Your task to perform on an android device: How do I get to the nearest Macy's? Image 0: 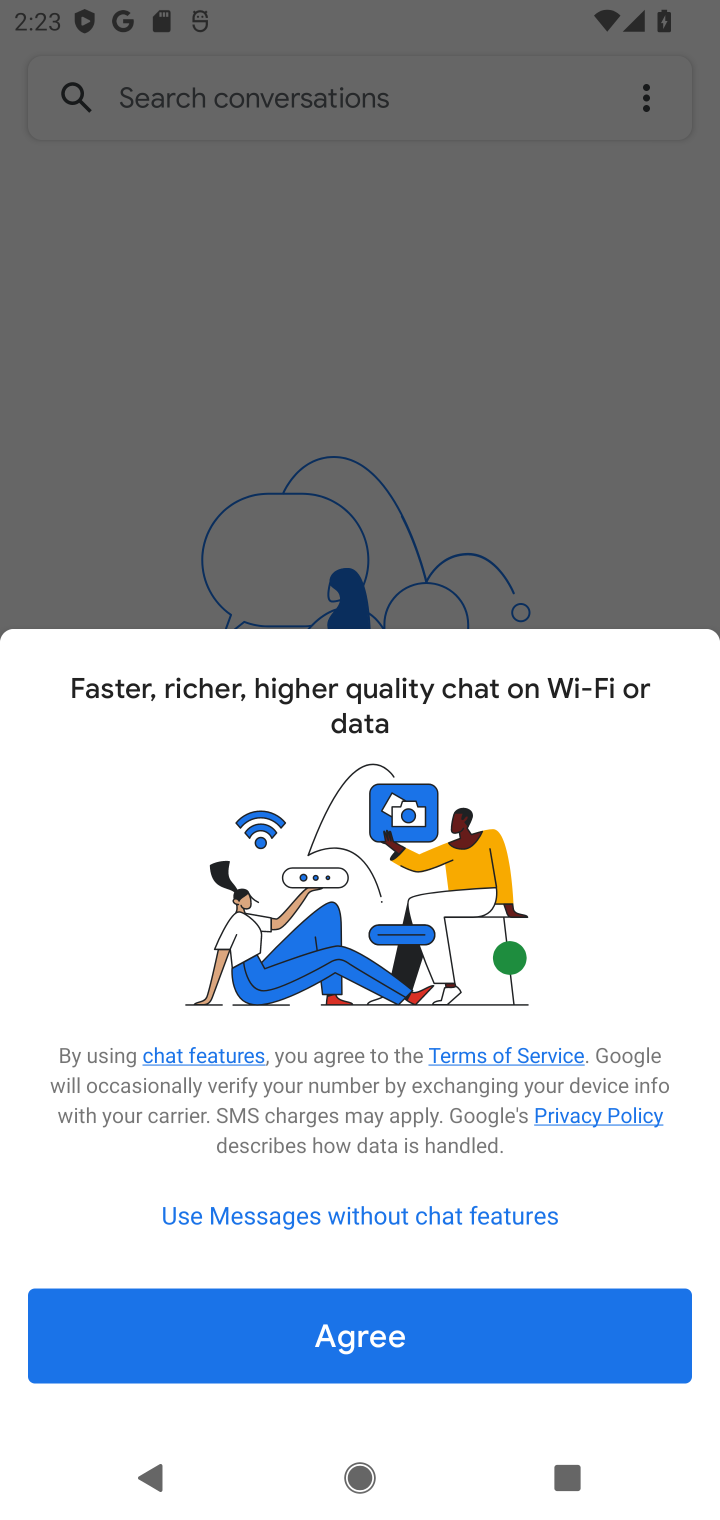
Step 0: press home button
Your task to perform on an android device: How do I get to the nearest Macy's? Image 1: 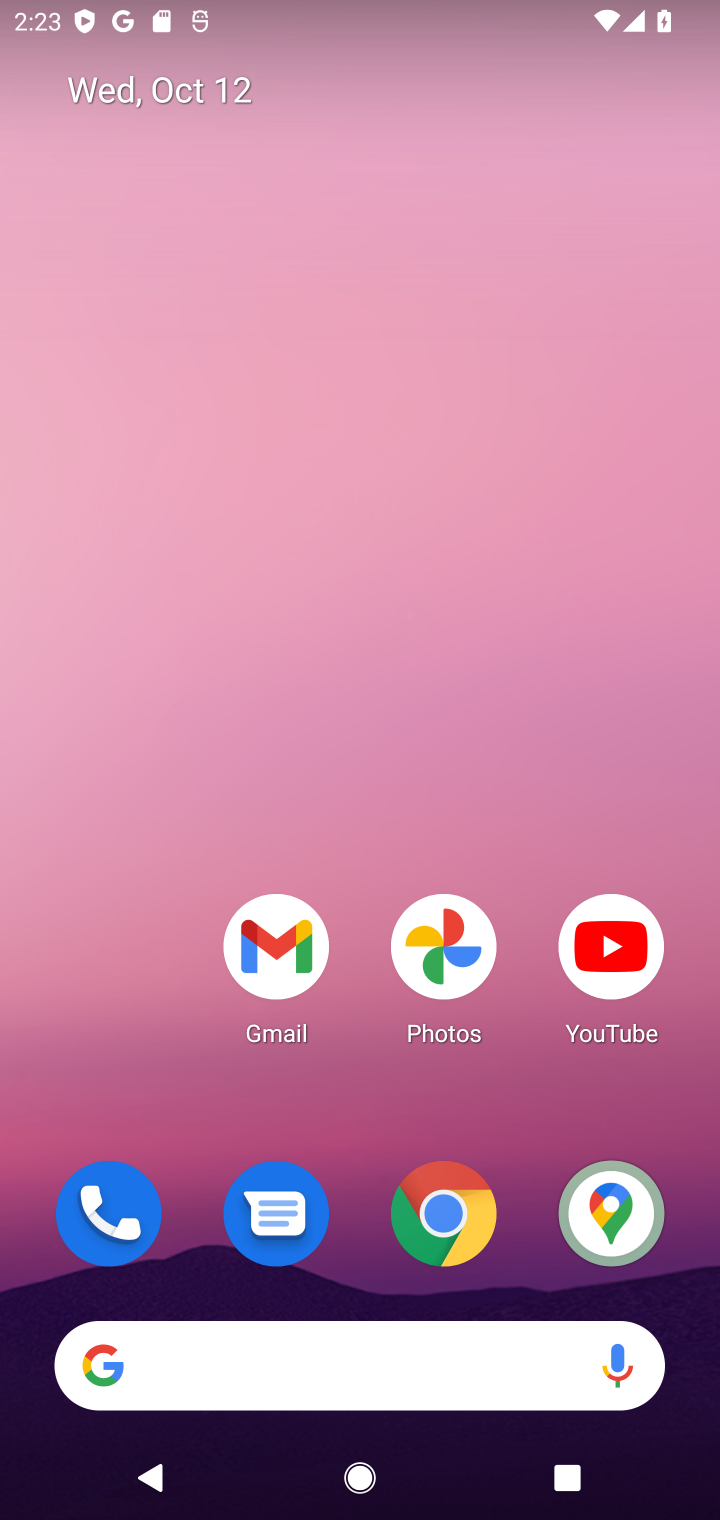
Step 1: click (327, 1335)
Your task to perform on an android device: How do I get to the nearest Macy's? Image 2: 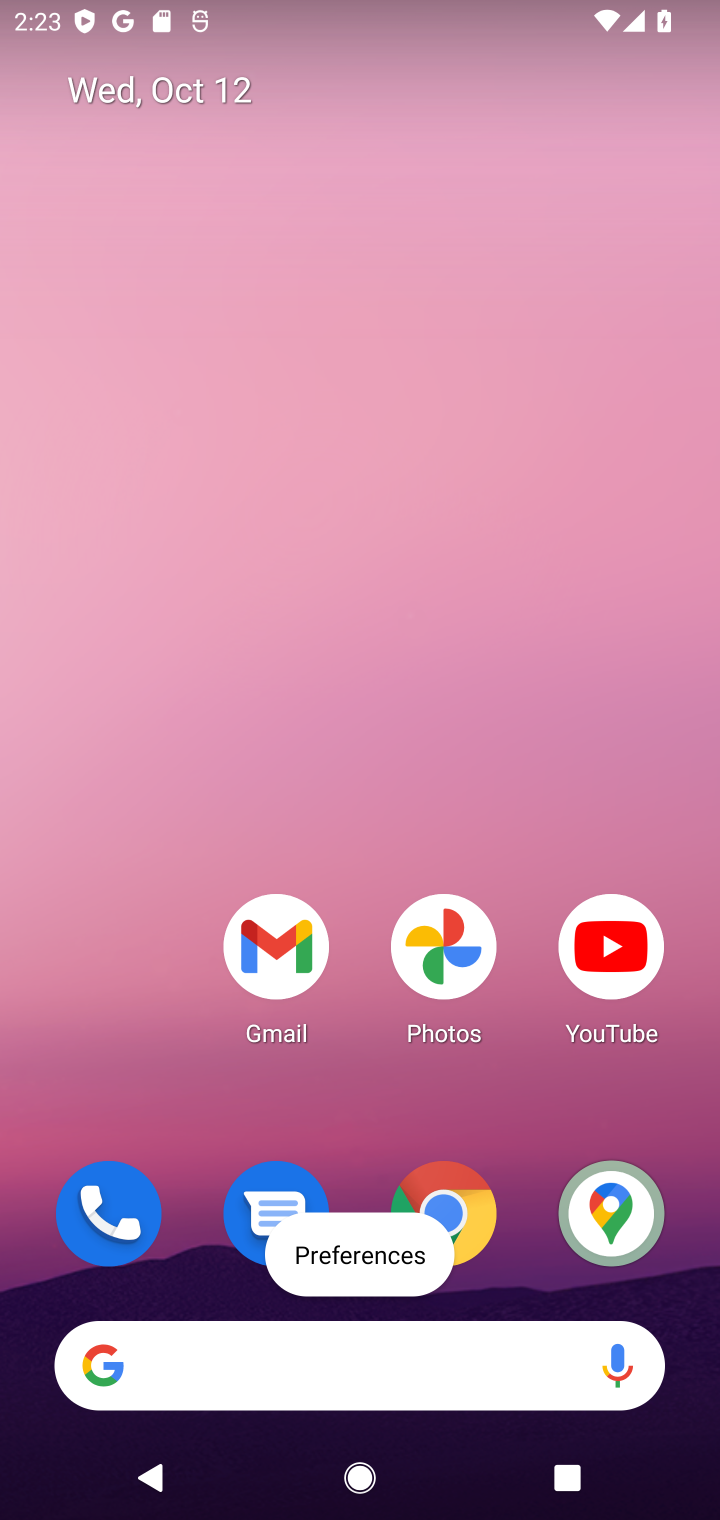
Step 2: click (296, 1347)
Your task to perform on an android device: How do I get to the nearest Macy's? Image 3: 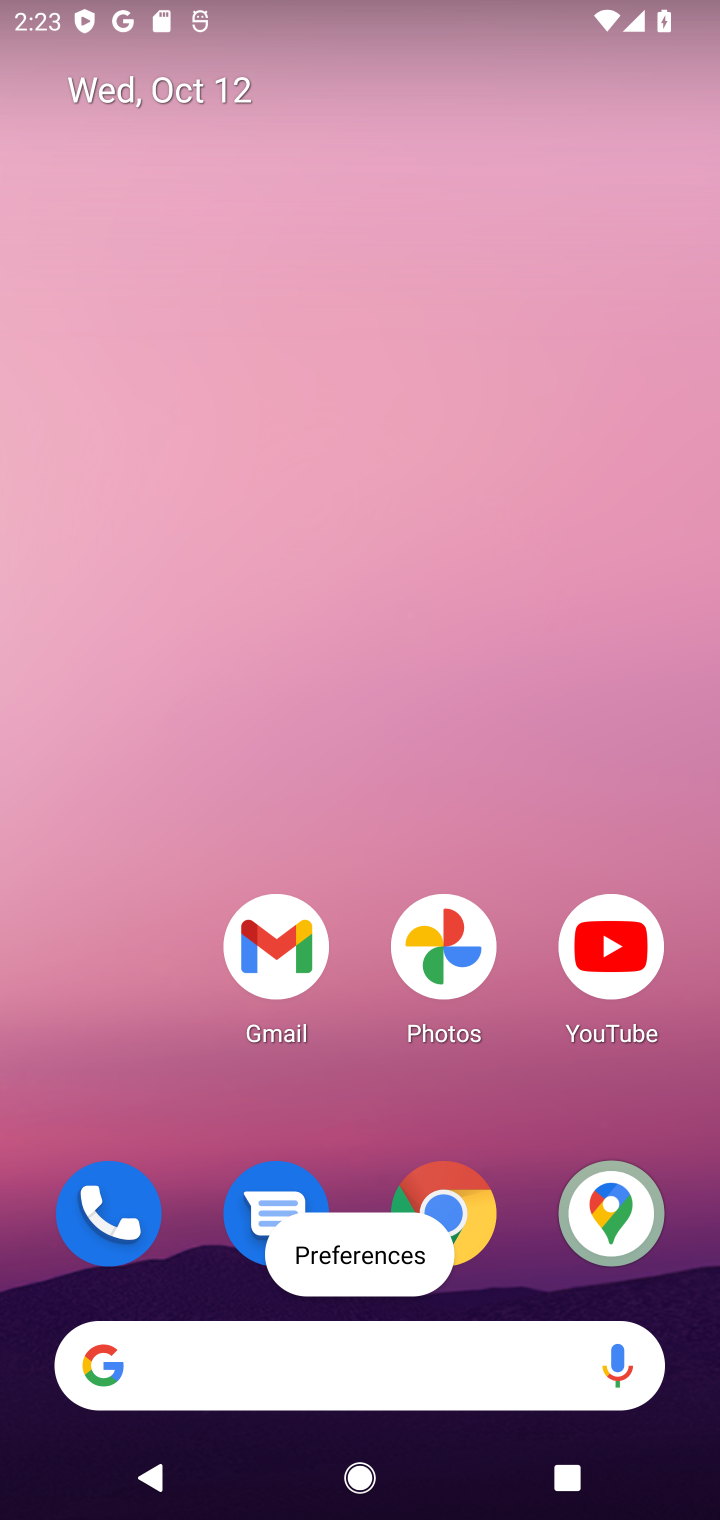
Step 3: type "How do I get to the nearest Macy's?"
Your task to perform on an android device: How do I get to the nearest Macy's? Image 4: 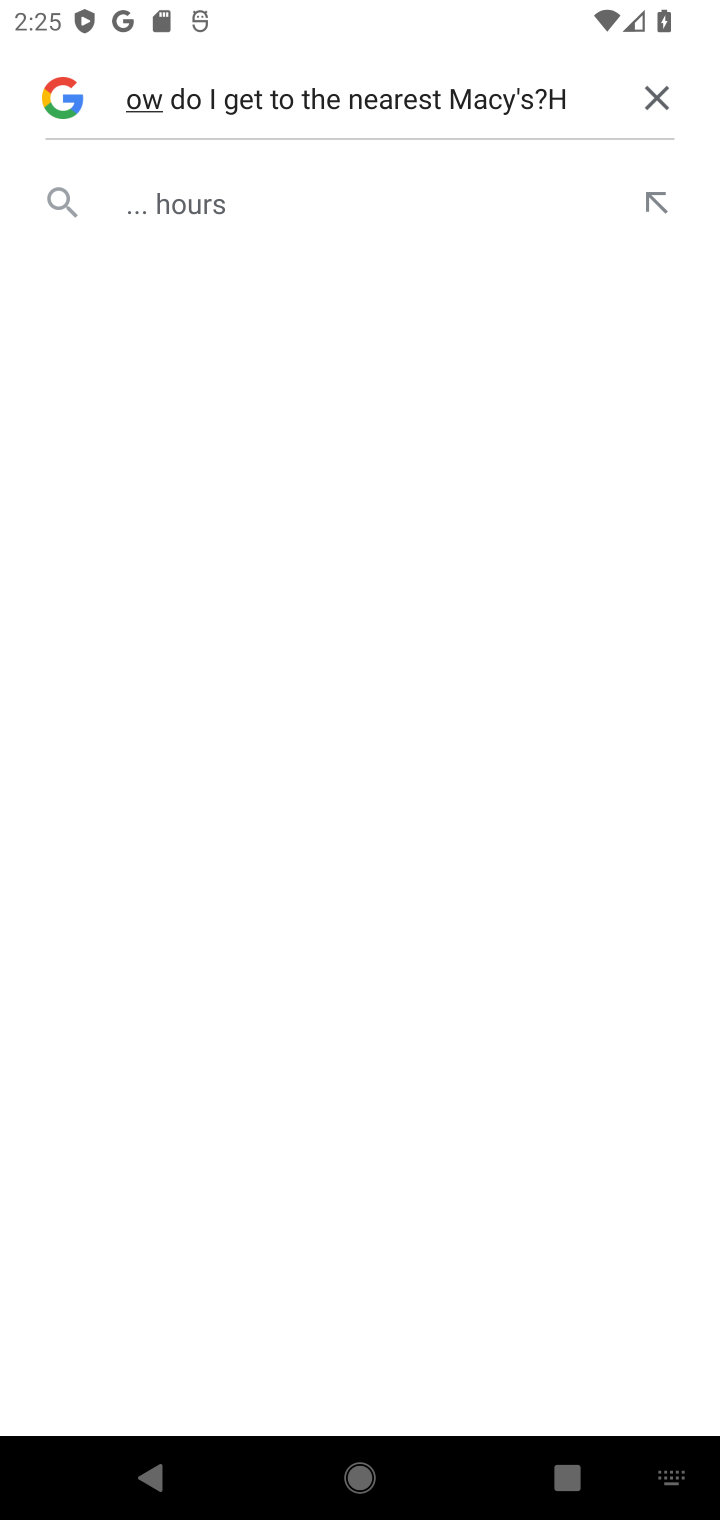
Step 4: click (644, 108)
Your task to perform on an android device: How do I get to the nearest Macy's? Image 5: 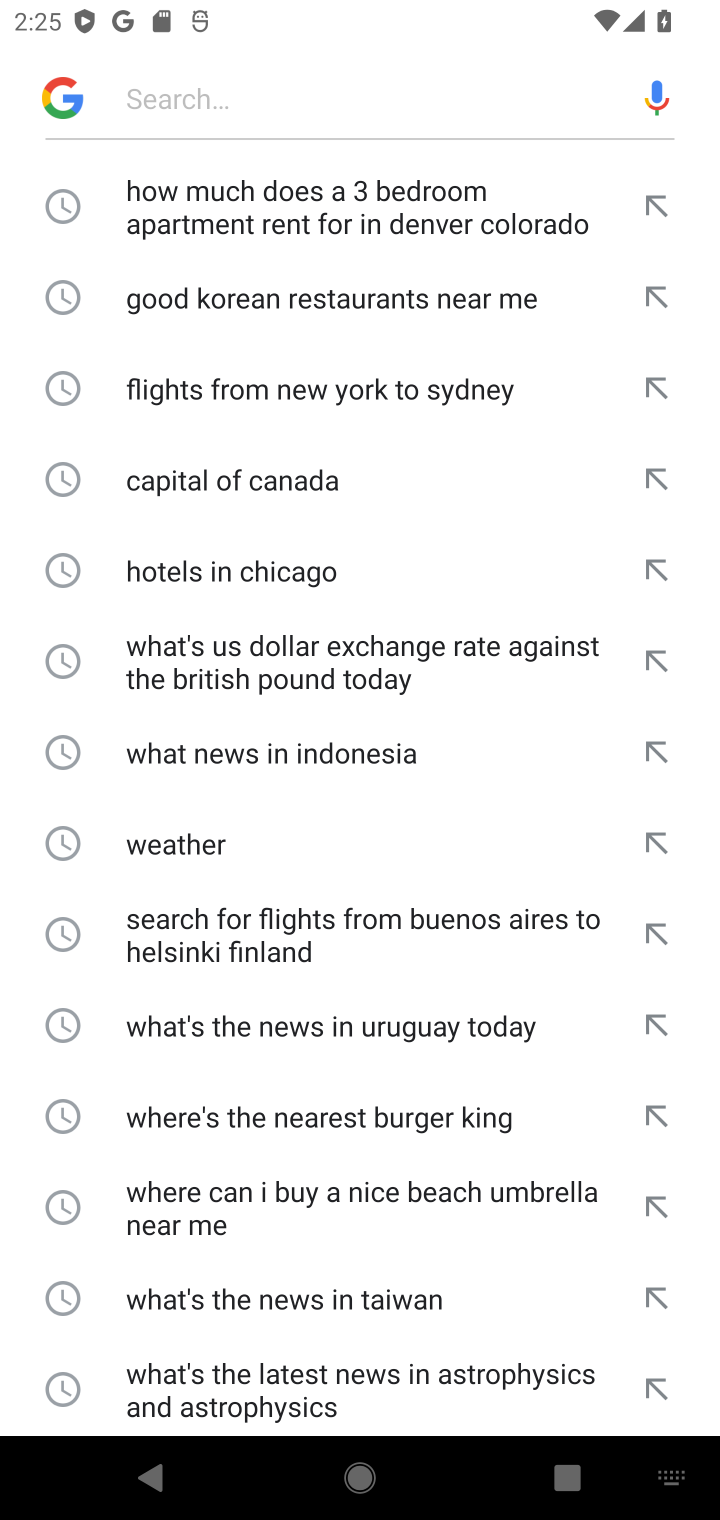
Step 5: click (160, 76)
Your task to perform on an android device: How do I get to the nearest Macy's? Image 6: 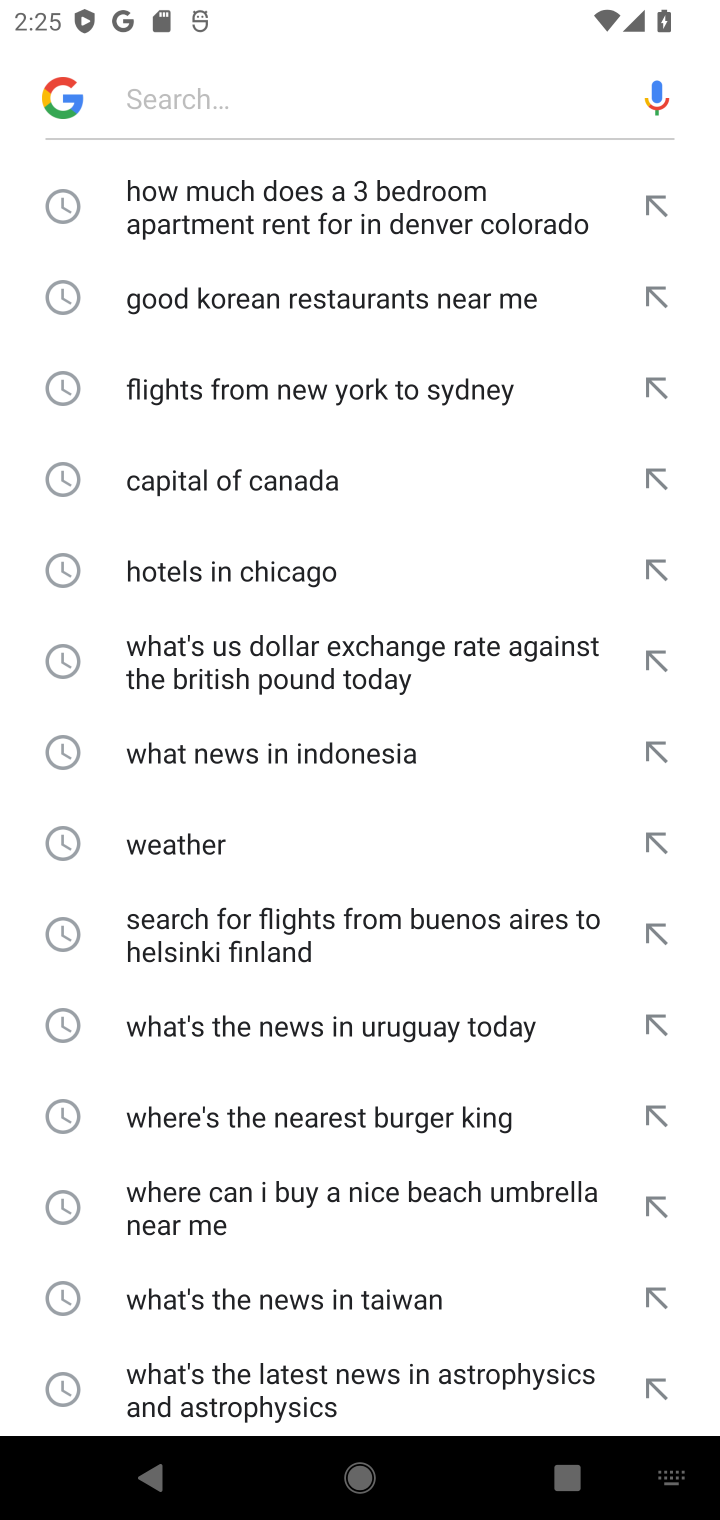
Step 6: type "How do I get to the nearest Macy's?"
Your task to perform on an android device: How do I get to the nearest Macy's? Image 7: 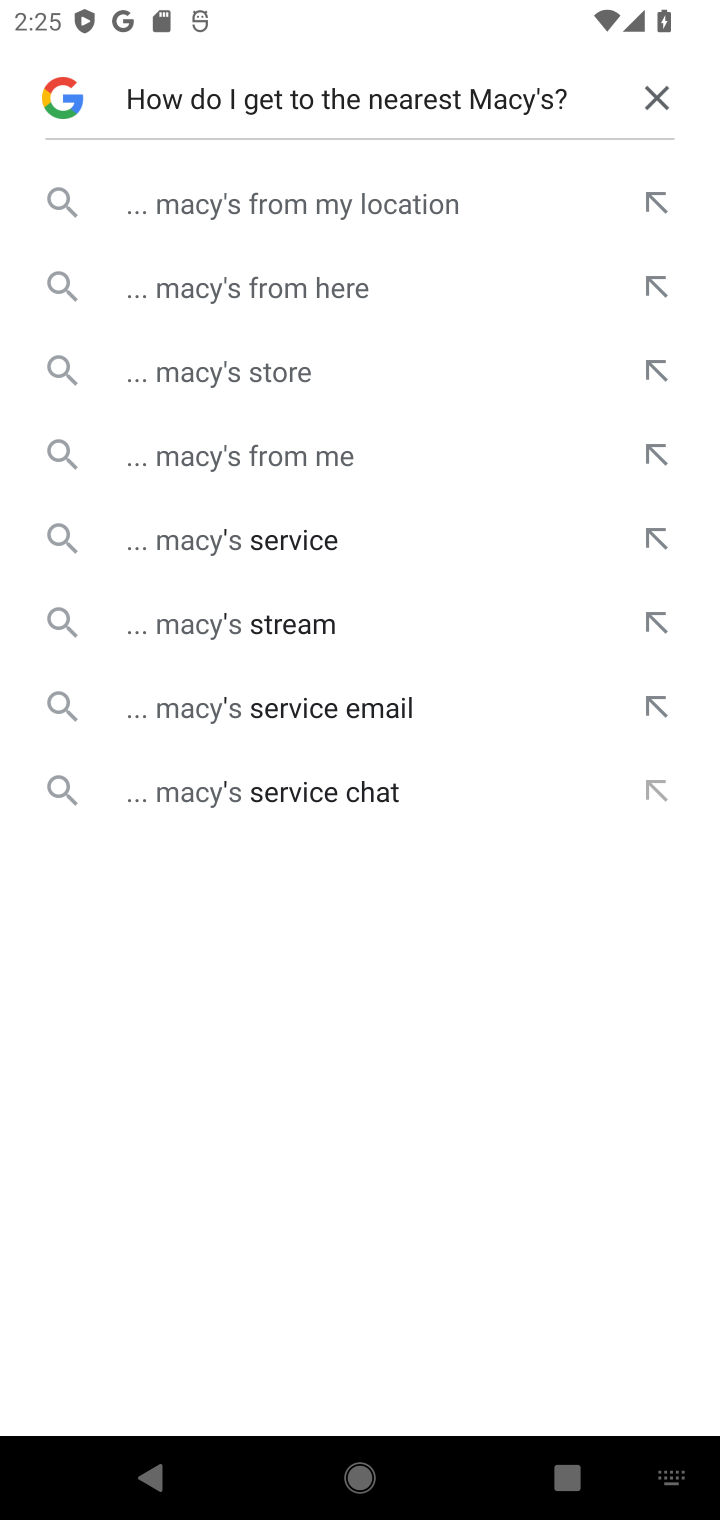
Step 7: click (320, 186)
Your task to perform on an android device: How do I get to the nearest Macy's? Image 8: 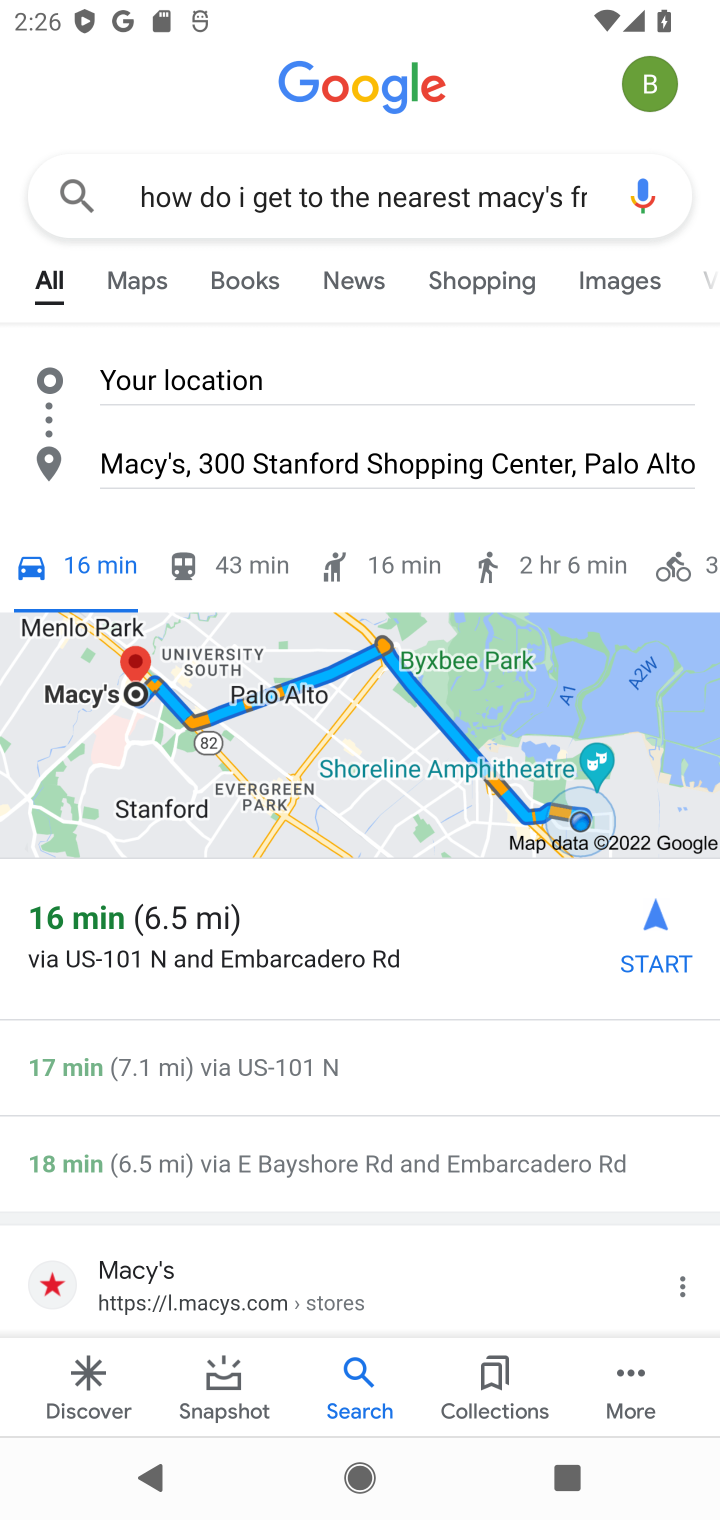
Step 8: task complete